Your task to perform on an android device: open a bookmark in the chrome app Image 0: 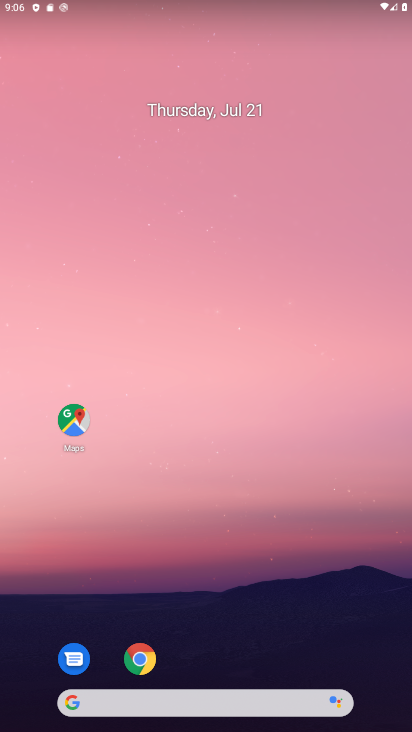
Step 0: click (153, 655)
Your task to perform on an android device: open a bookmark in the chrome app Image 1: 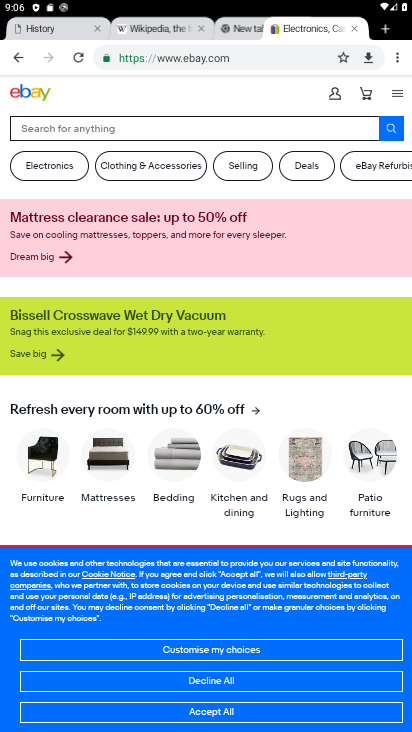
Step 1: task complete